Your task to perform on an android device: open a new tab in the chrome app Image 0: 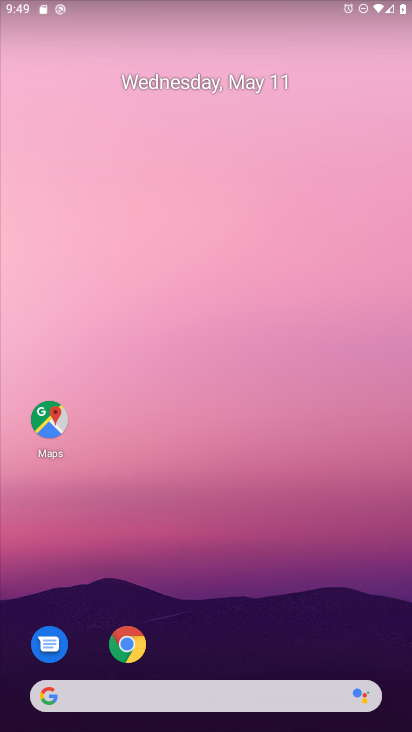
Step 0: click (132, 646)
Your task to perform on an android device: open a new tab in the chrome app Image 1: 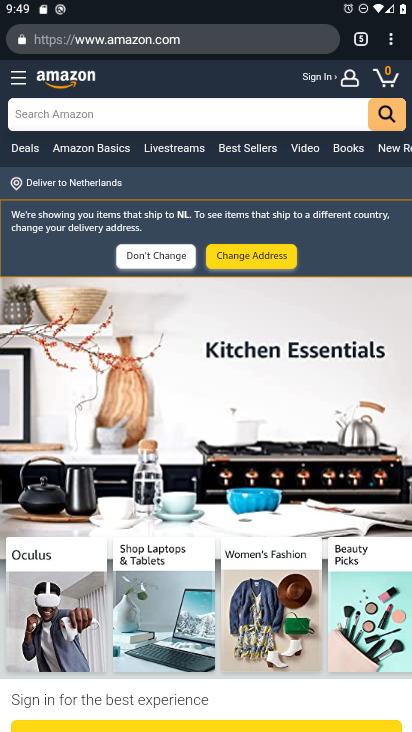
Step 1: click (389, 38)
Your task to perform on an android device: open a new tab in the chrome app Image 2: 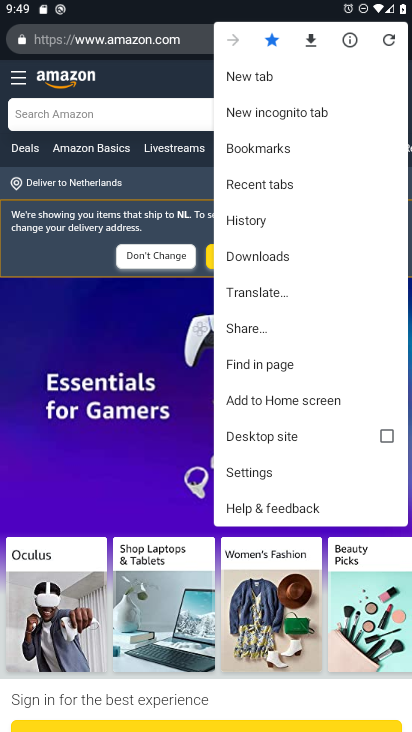
Step 2: click (247, 77)
Your task to perform on an android device: open a new tab in the chrome app Image 3: 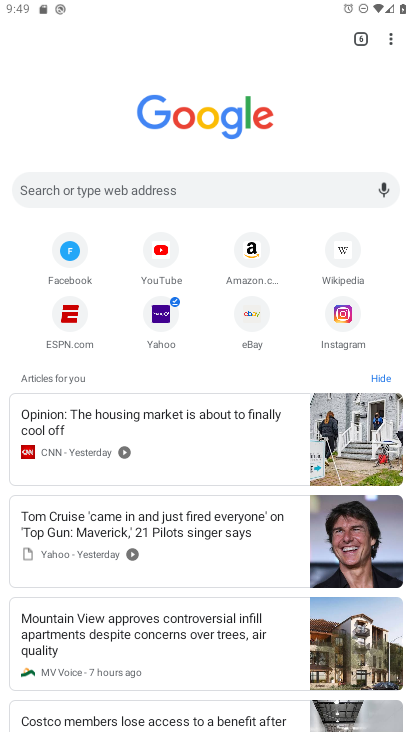
Step 3: task complete